Your task to perform on an android device: turn on data saver in the chrome app Image 0: 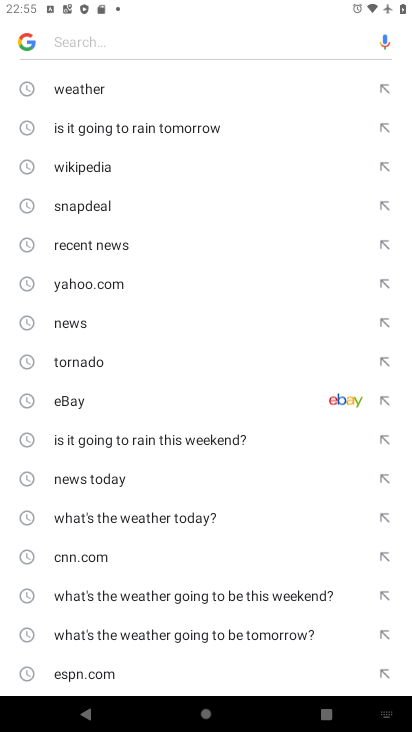
Step 0: press home button
Your task to perform on an android device: turn on data saver in the chrome app Image 1: 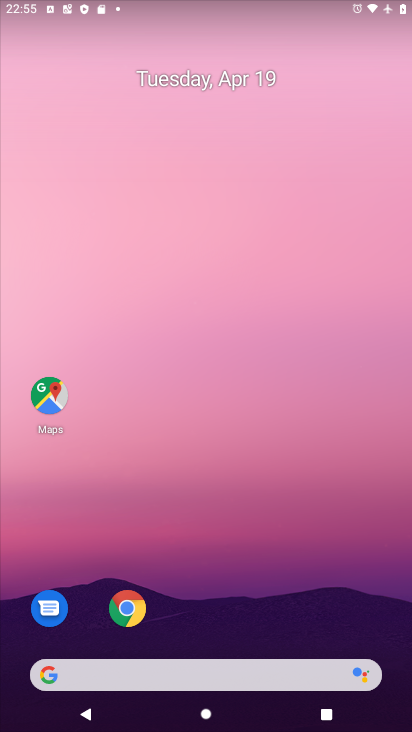
Step 1: drag from (252, 616) to (195, 148)
Your task to perform on an android device: turn on data saver in the chrome app Image 2: 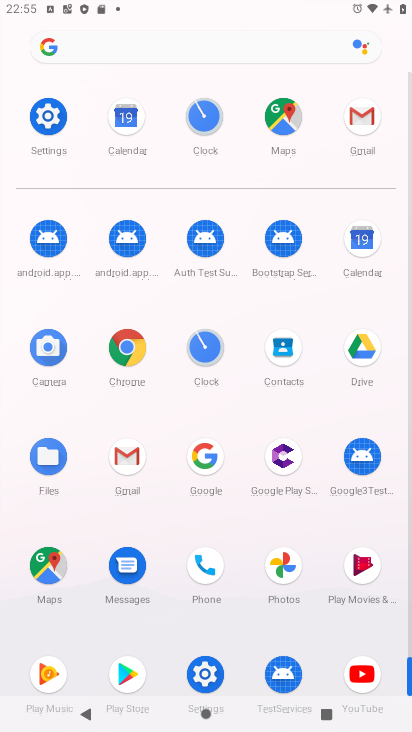
Step 2: click (121, 345)
Your task to perform on an android device: turn on data saver in the chrome app Image 3: 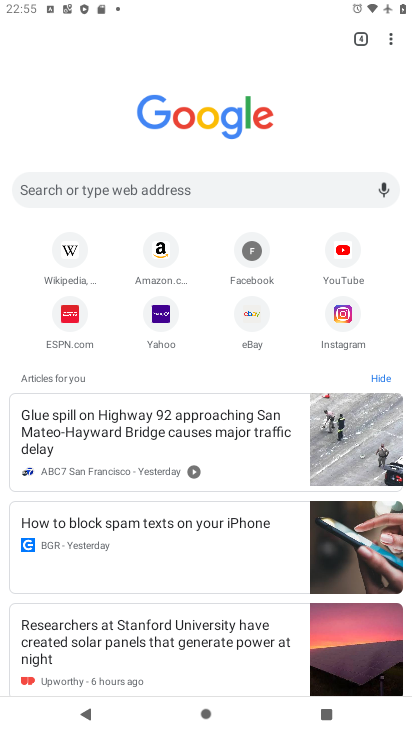
Step 3: click (388, 42)
Your task to perform on an android device: turn on data saver in the chrome app Image 4: 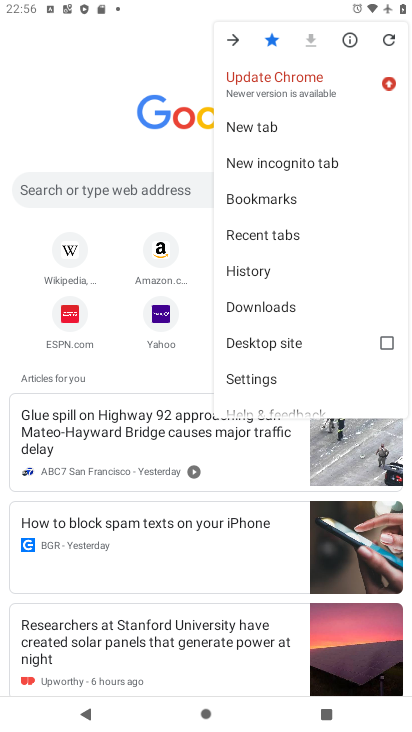
Step 4: click (255, 379)
Your task to perform on an android device: turn on data saver in the chrome app Image 5: 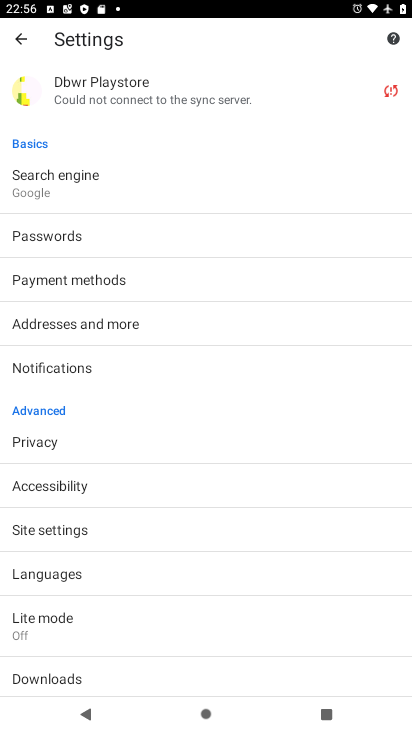
Step 5: click (38, 618)
Your task to perform on an android device: turn on data saver in the chrome app Image 6: 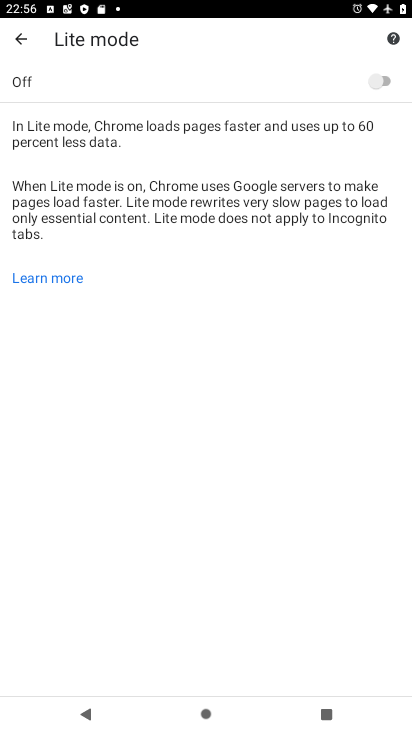
Step 6: click (382, 78)
Your task to perform on an android device: turn on data saver in the chrome app Image 7: 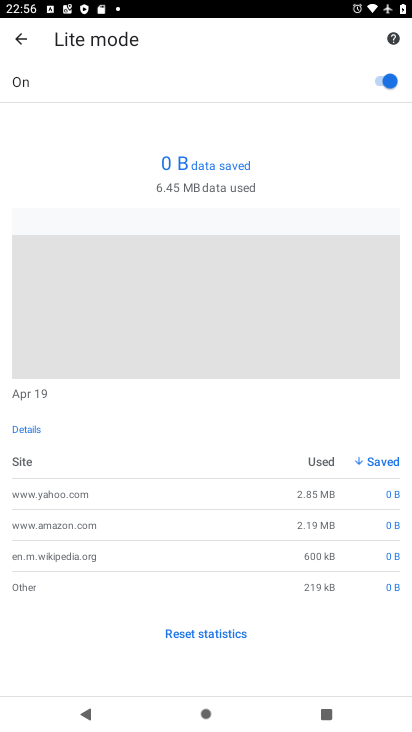
Step 7: task complete